Your task to perform on an android device: Search for seafood restaurants on Google Maps Image 0: 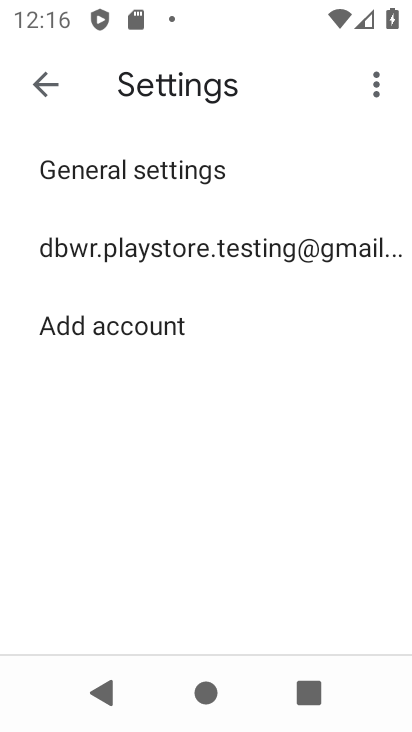
Step 0: press back button
Your task to perform on an android device: Search for seafood restaurants on Google Maps Image 1: 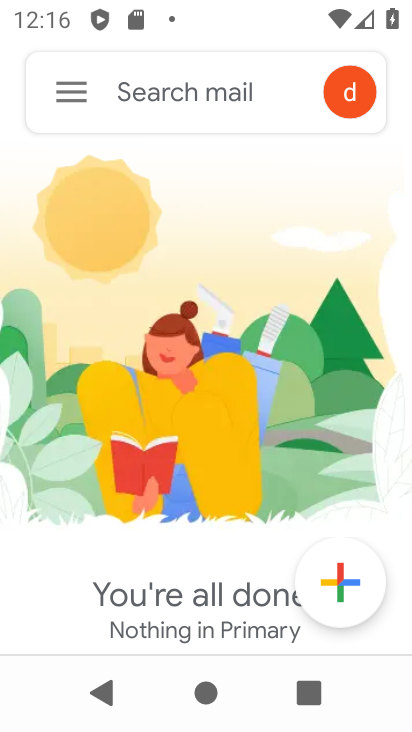
Step 1: press back button
Your task to perform on an android device: Search for seafood restaurants on Google Maps Image 2: 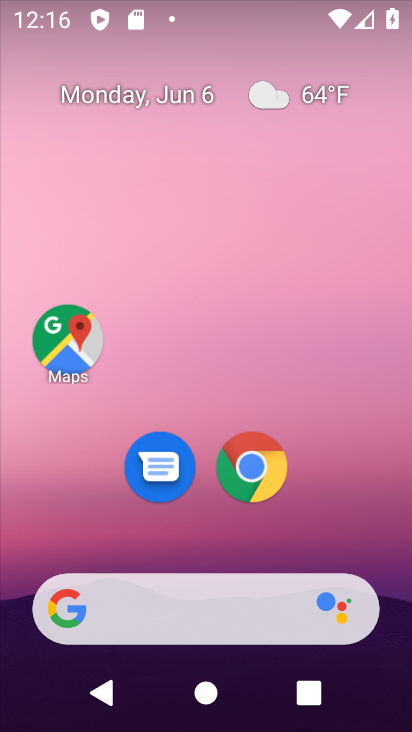
Step 2: click (66, 340)
Your task to perform on an android device: Search for seafood restaurants on Google Maps Image 3: 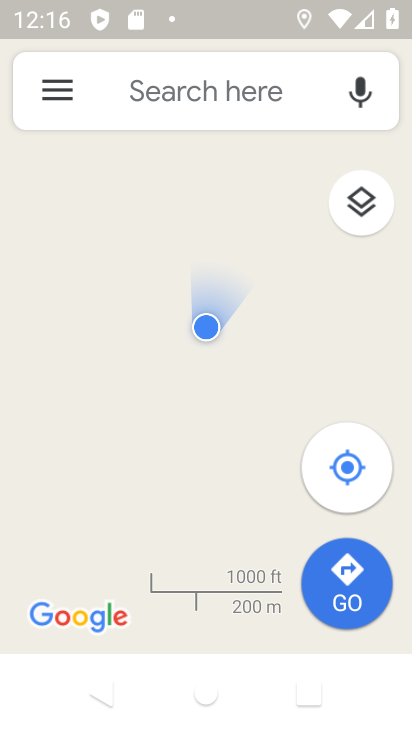
Step 3: click (276, 98)
Your task to perform on an android device: Search for seafood restaurants on Google Maps Image 4: 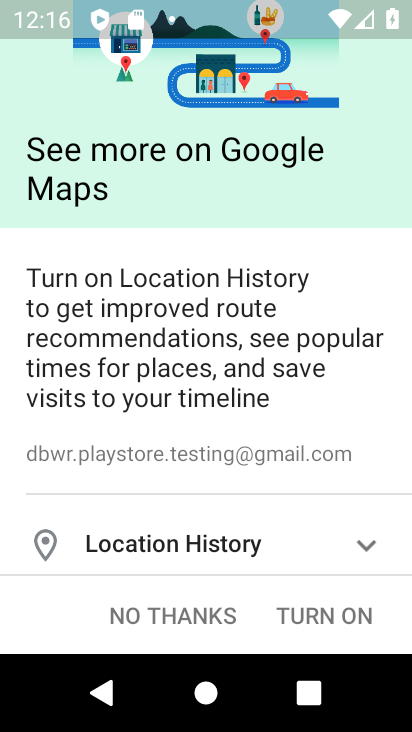
Step 4: click (193, 621)
Your task to perform on an android device: Search for seafood restaurants on Google Maps Image 5: 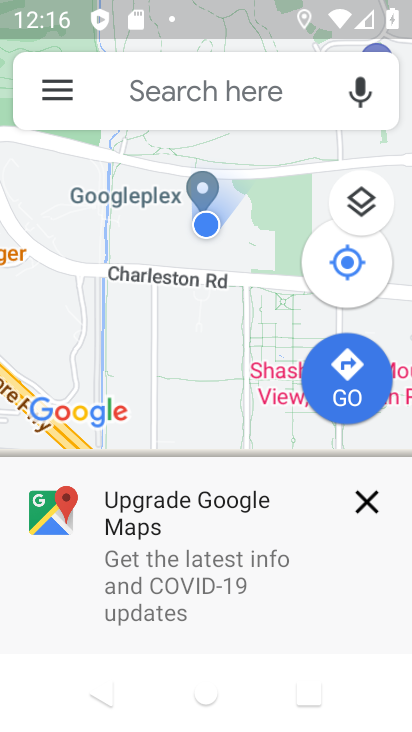
Step 5: click (226, 98)
Your task to perform on an android device: Search for seafood restaurants on Google Maps Image 6: 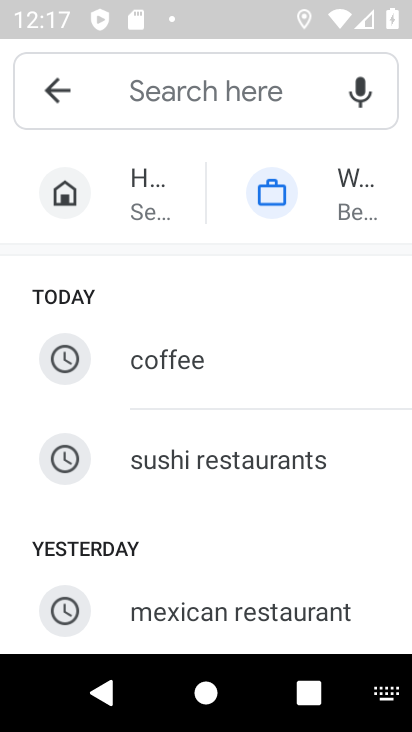
Step 6: type "seafood restaurants"
Your task to perform on an android device: Search for seafood restaurants on Google Maps Image 7: 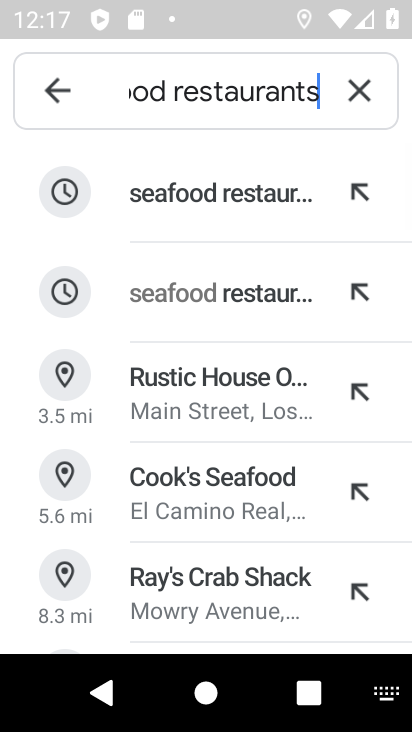
Step 7: click (174, 197)
Your task to perform on an android device: Search for seafood restaurants on Google Maps Image 8: 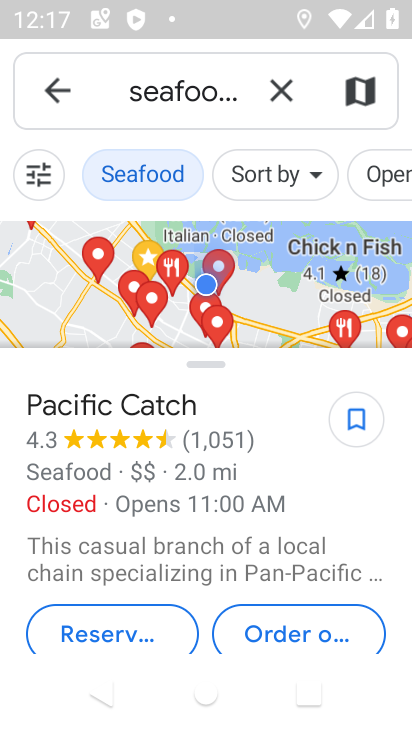
Step 8: task complete